Your task to perform on an android device: visit the assistant section in the google photos Image 0: 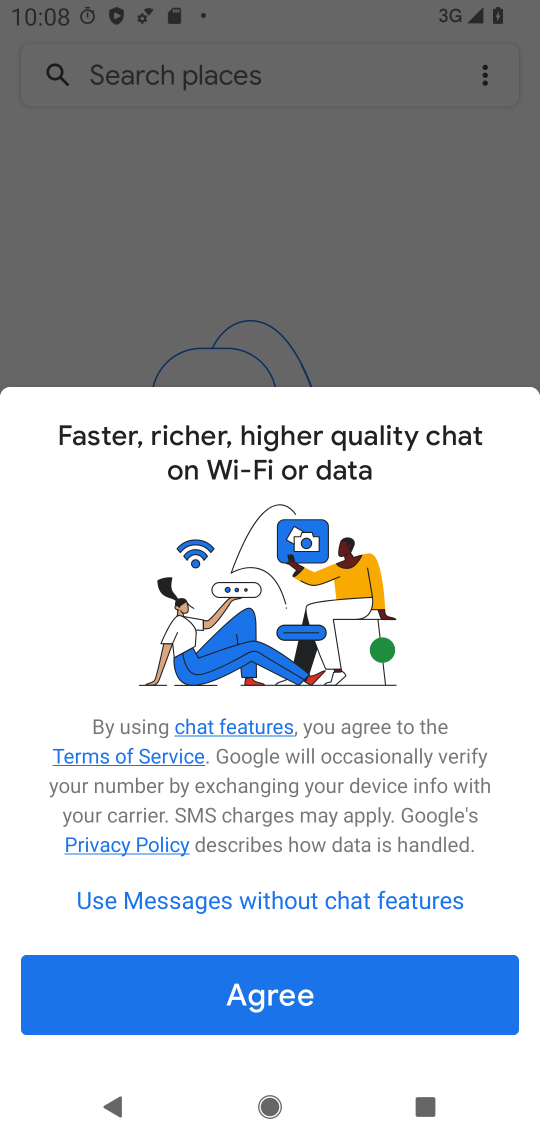
Step 0: press home button
Your task to perform on an android device: visit the assistant section in the google photos Image 1: 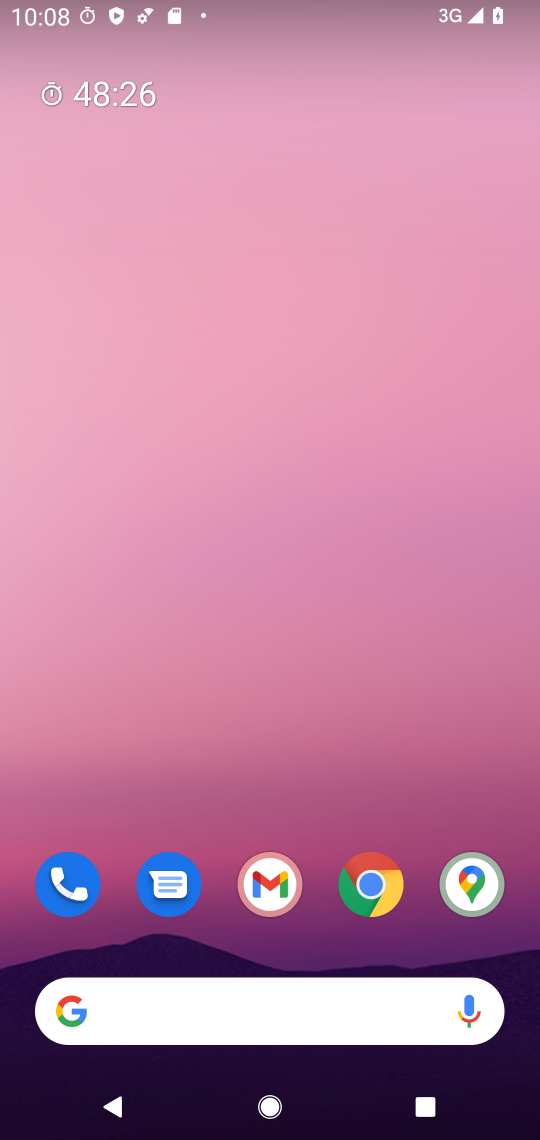
Step 1: drag from (246, 812) to (262, 224)
Your task to perform on an android device: visit the assistant section in the google photos Image 2: 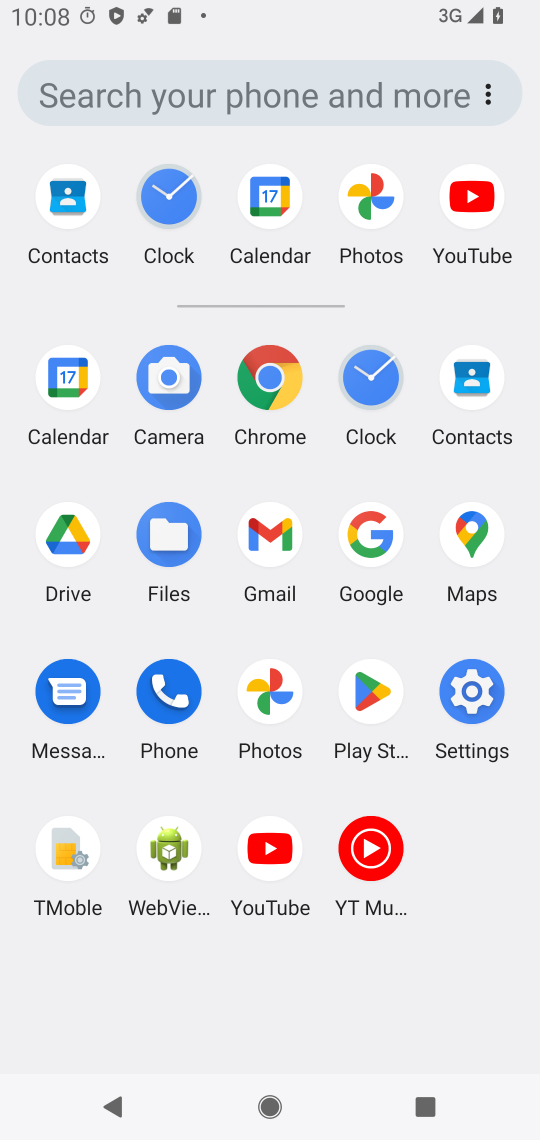
Step 2: click (373, 192)
Your task to perform on an android device: visit the assistant section in the google photos Image 3: 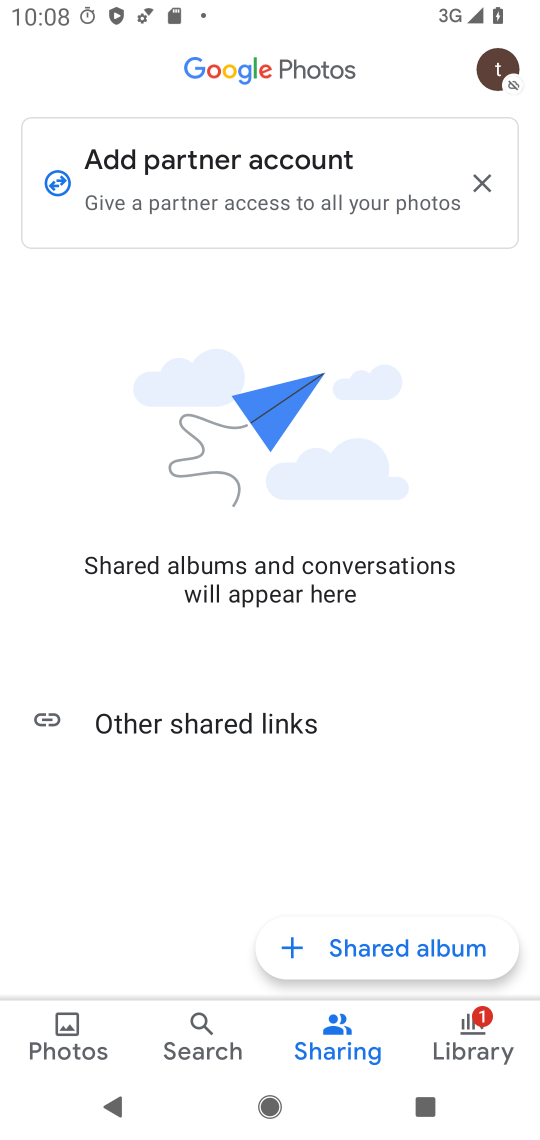
Step 3: click (81, 1032)
Your task to perform on an android device: visit the assistant section in the google photos Image 4: 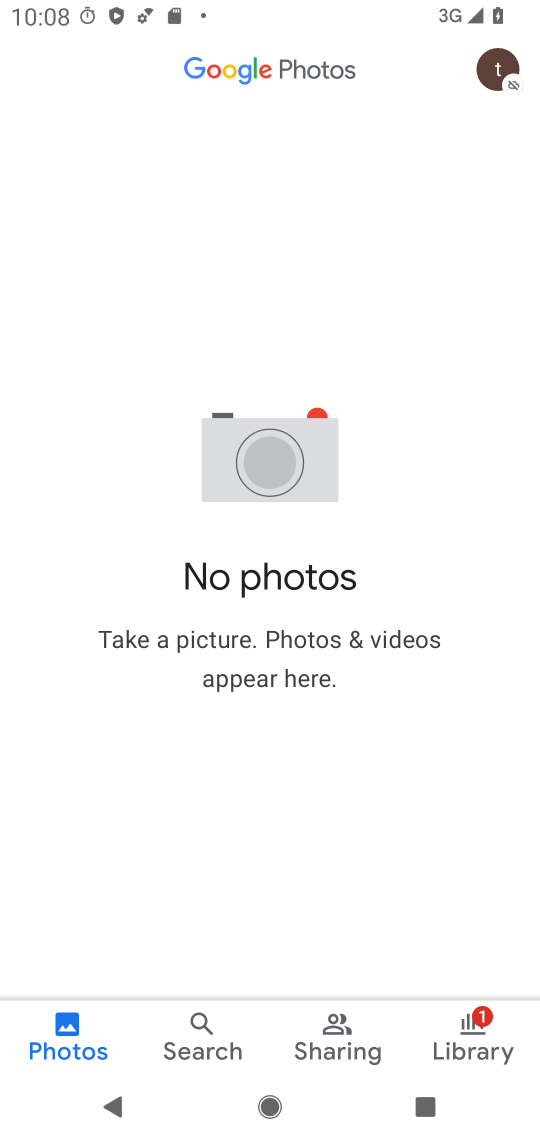
Step 4: click (494, 1031)
Your task to perform on an android device: visit the assistant section in the google photos Image 5: 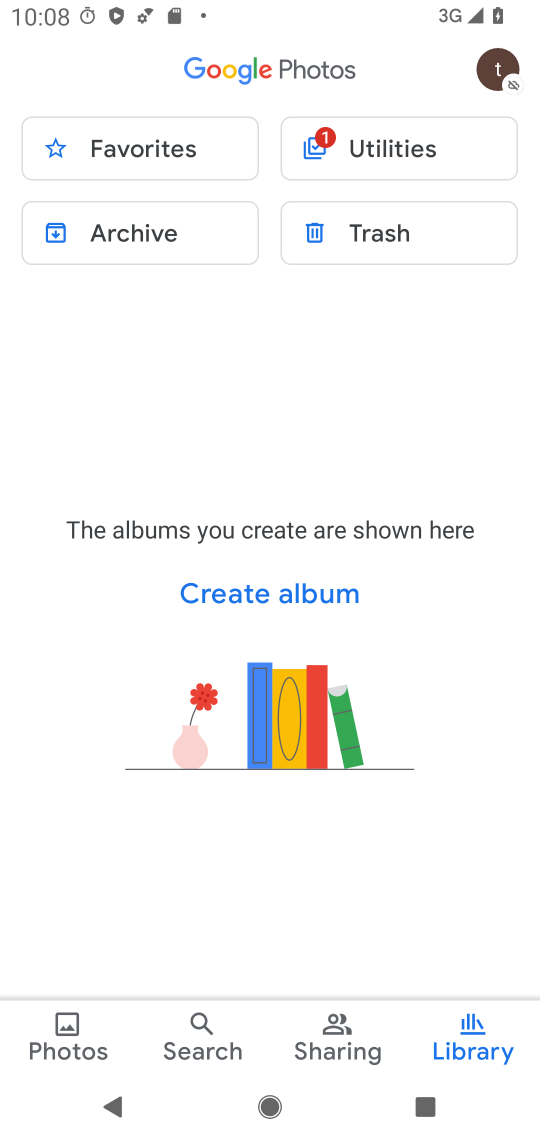
Step 5: click (492, 82)
Your task to perform on an android device: visit the assistant section in the google photos Image 6: 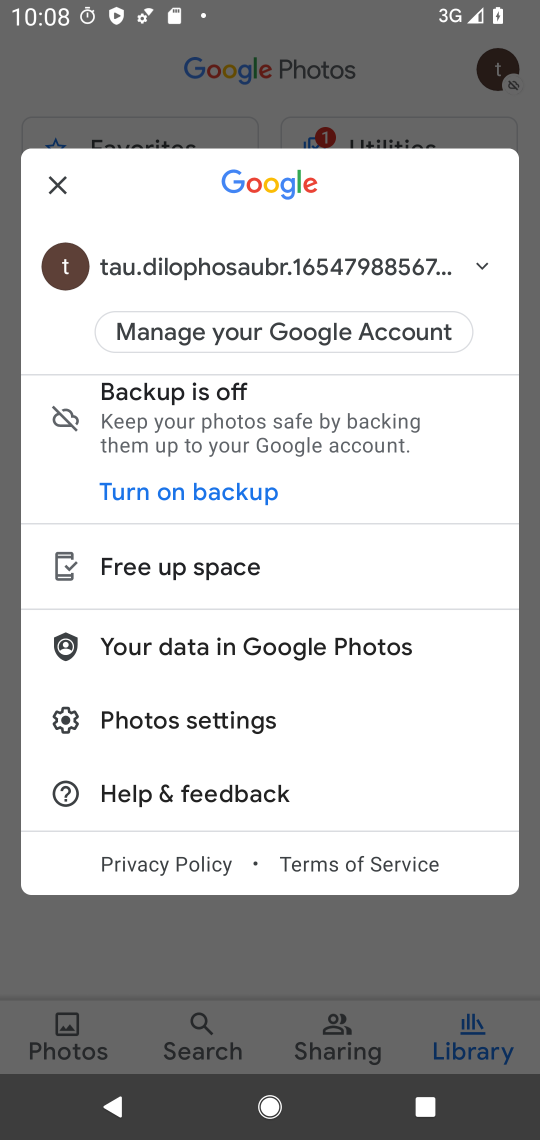
Step 6: click (157, 941)
Your task to perform on an android device: visit the assistant section in the google photos Image 7: 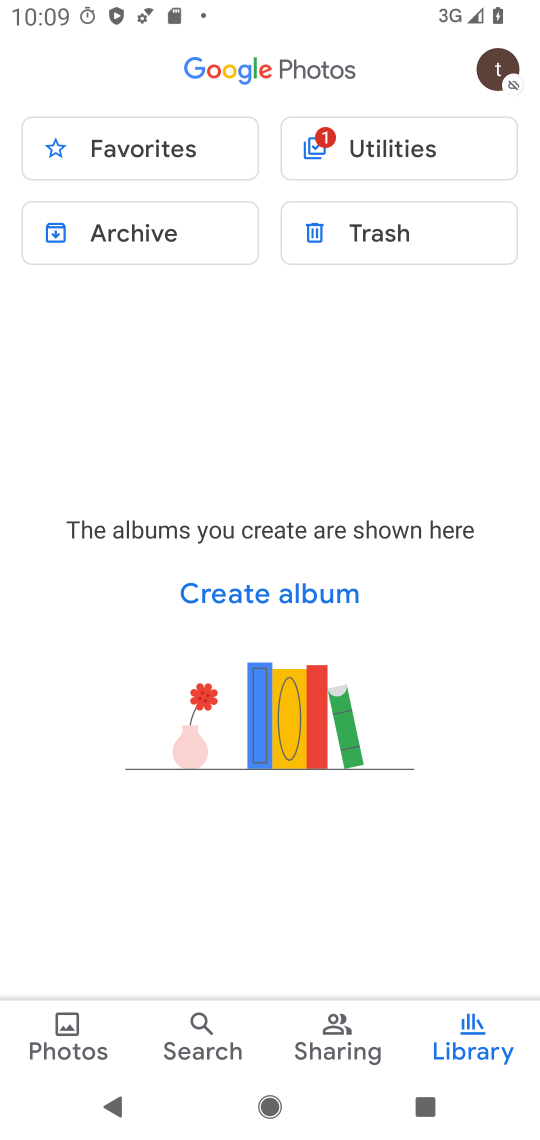
Step 7: task complete